Your task to perform on an android device: Open sound settings Image 0: 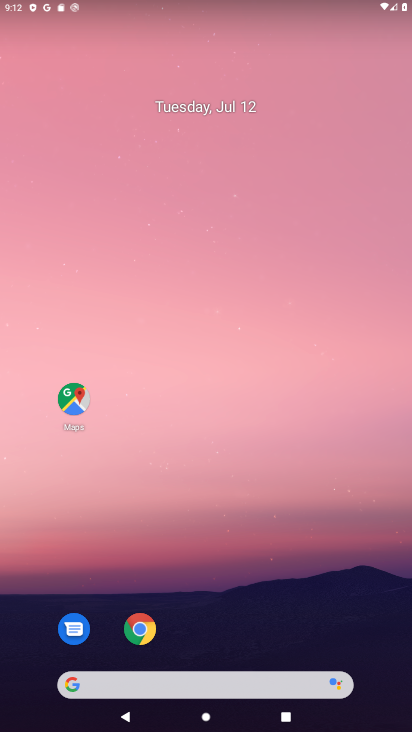
Step 0: drag from (262, 648) to (213, 87)
Your task to perform on an android device: Open sound settings Image 1: 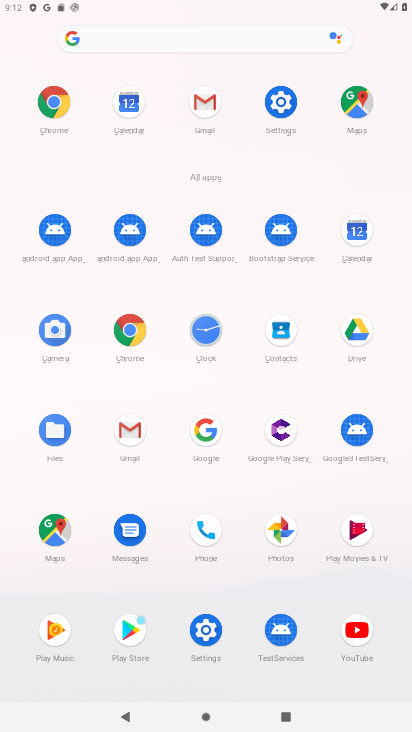
Step 1: click (284, 94)
Your task to perform on an android device: Open sound settings Image 2: 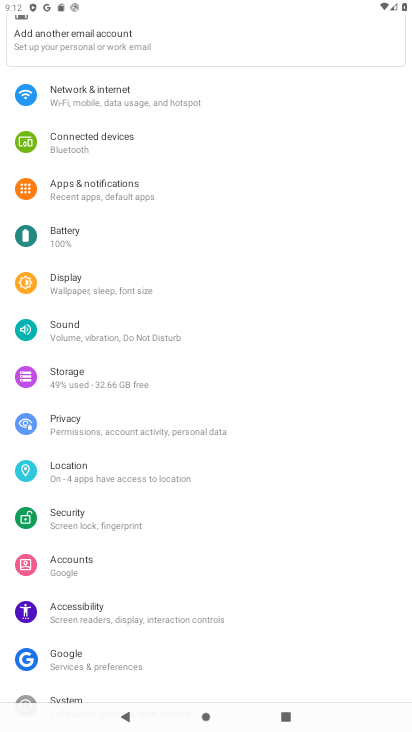
Step 2: click (157, 326)
Your task to perform on an android device: Open sound settings Image 3: 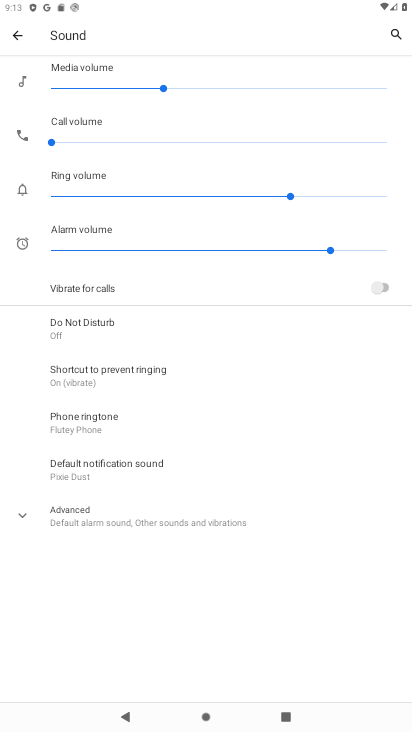
Step 3: task complete